Your task to perform on an android device: change text size in settings app Image 0: 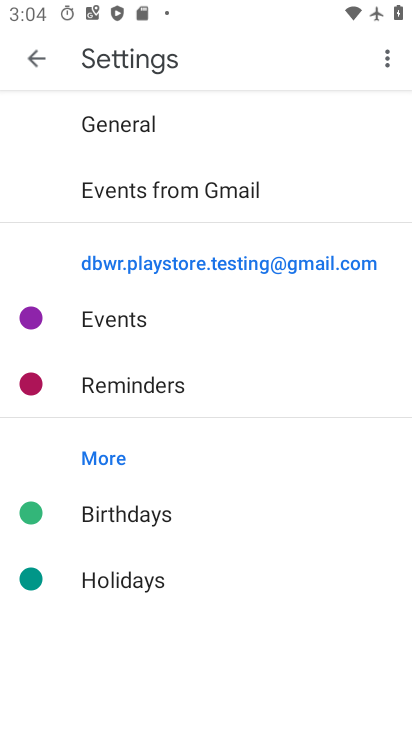
Step 0: press back button
Your task to perform on an android device: change text size in settings app Image 1: 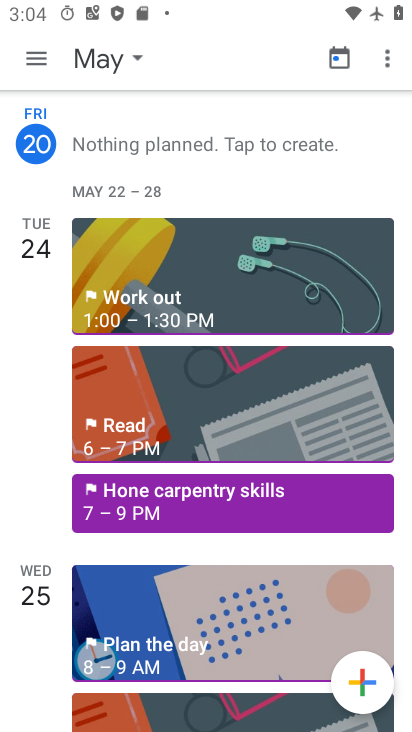
Step 1: press back button
Your task to perform on an android device: change text size in settings app Image 2: 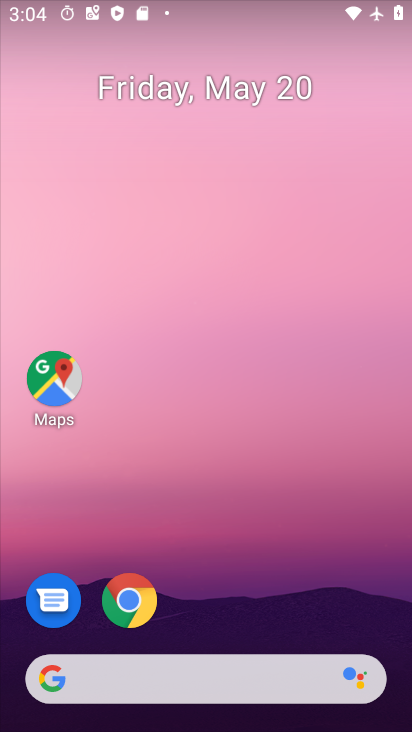
Step 2: drag from (229, 514) to (206, 67)
Your task to perform on an android device: change text size in settings app Image 3: 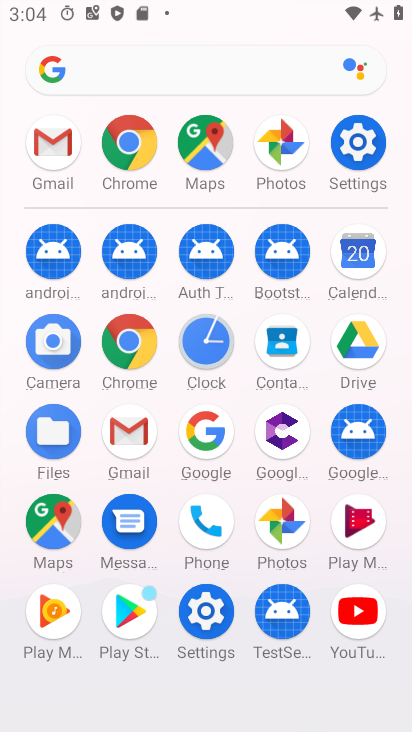
Step 3: drag from (8, 552) to (17, 271)
Your task to perform on an android device: change text size in settings app Image 4: 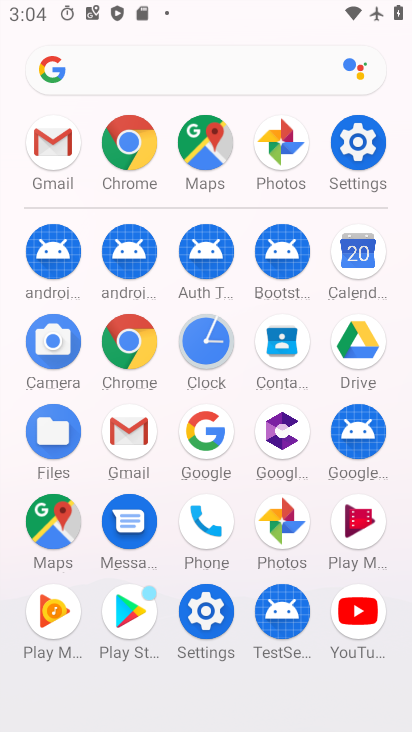
Step 4: click (207, 608)
Your task to perform on an android device: change text size in settings app Image 5: 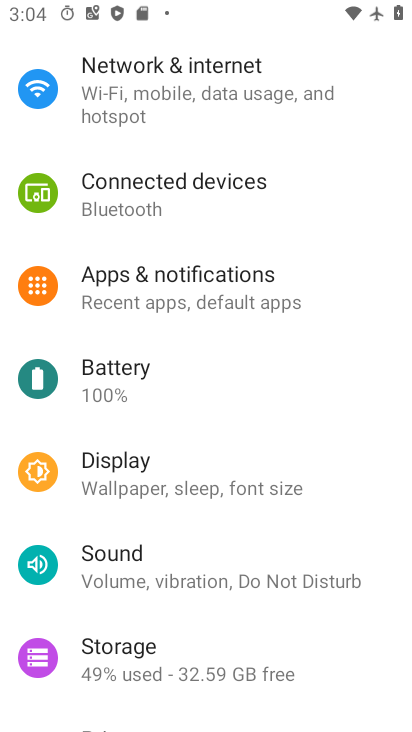
Step 5: click (161, 480)
Your task to perform on an android device: change text size in settings app Image 6: 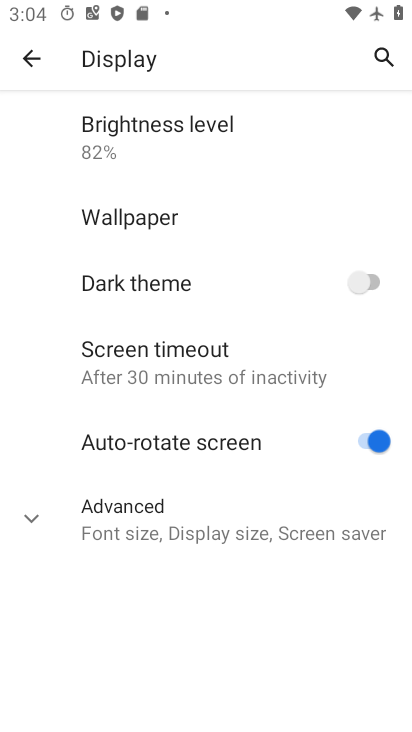
Step 6: click (78, 516)
Your task to perform on an android device: change text size in settings app Image 7: 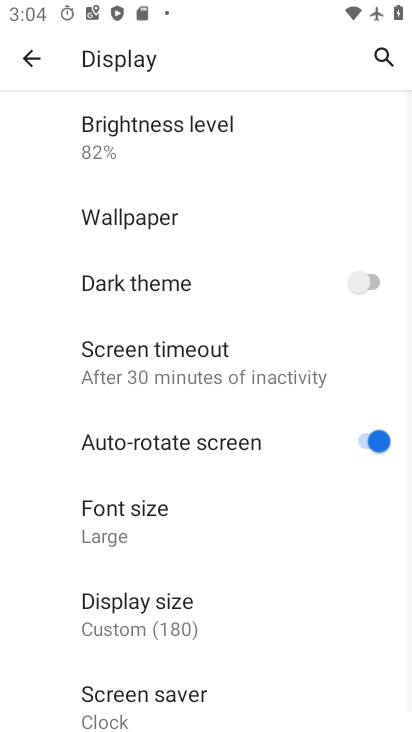
Step 7: drag from (37, 570) to (54, 188)
Your task to perform on an android device: change text size in settings app Image 8: 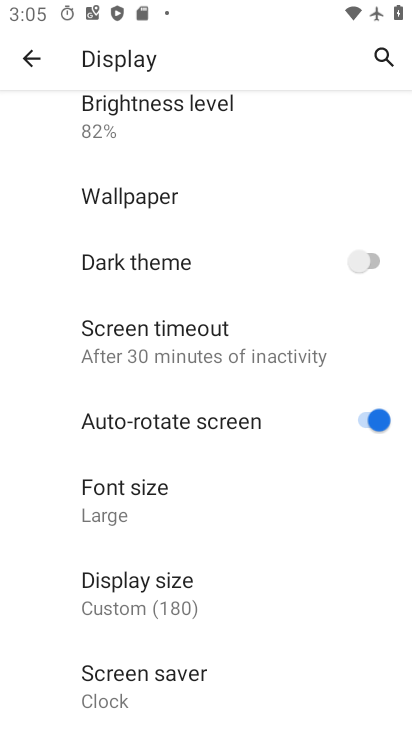
Step 8: click (122, 509)
Your task to perform on an android device: change text size in settings app Image 9: 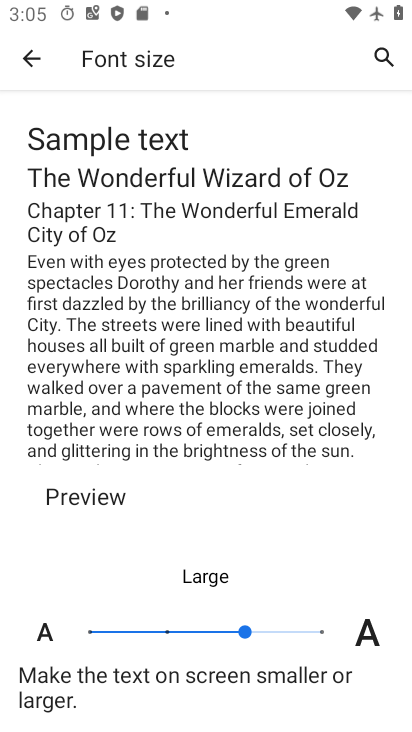
Step 9: click (320, 627)
Your task to perform on an android device: change text size in settings app Image 10: 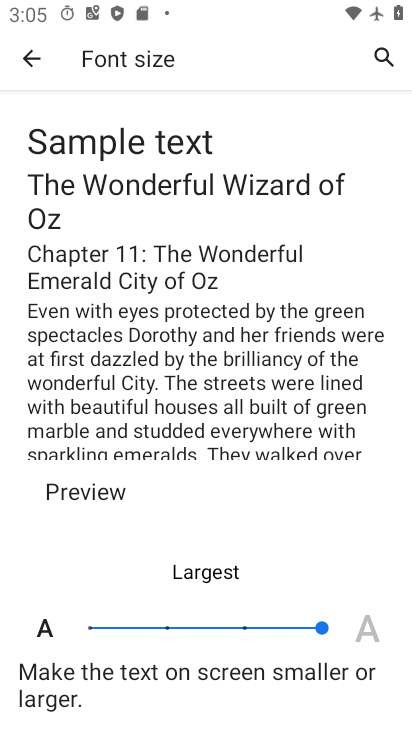
Step 10: task complete